Your task to perform on an android device: make emails show in primary in the gmail app Image 0: 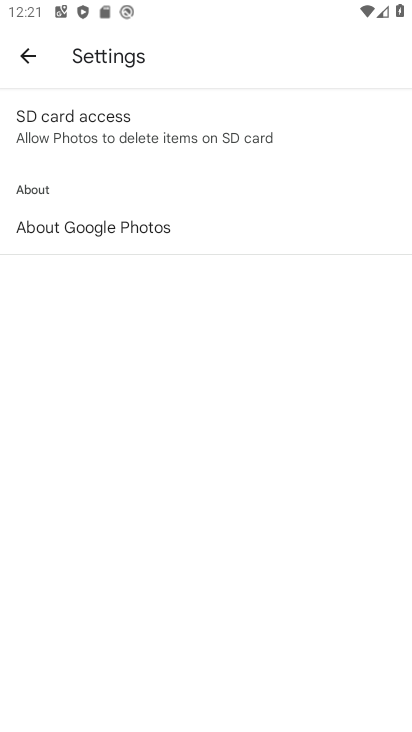
Step 0: press home button
Your task to perform on an android device: make emails show in primary in the gmail app Image 1: 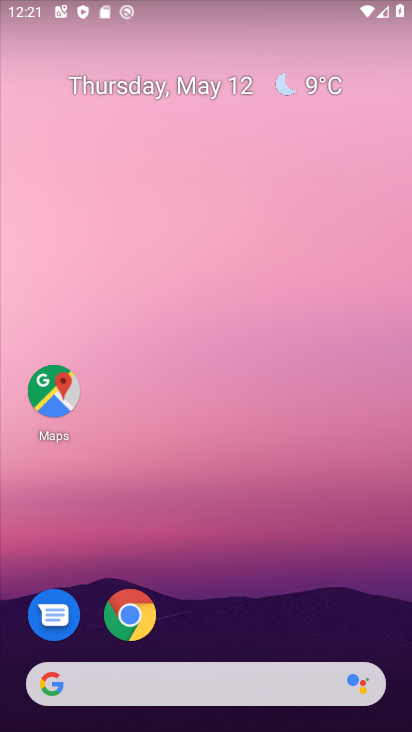
Step 1: drag from (227, 595) to (206, 107)
Your task to perform on an android device: make emails show in primary in the gmail app Image 2: 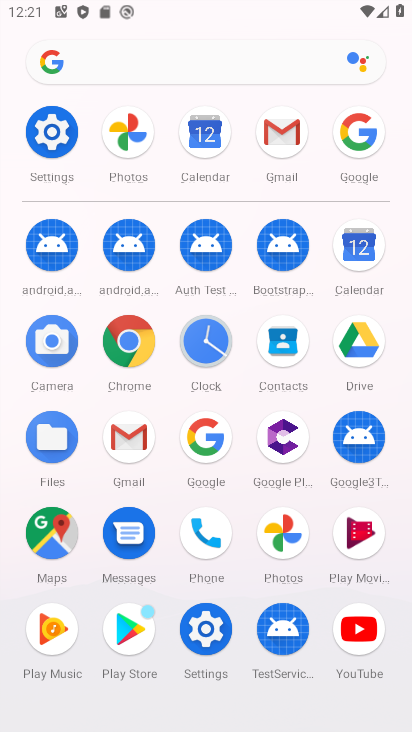
Step 2: click (290, 134)
Your task to perform on an android device: make emails show in primary in the gmail app Image 3: 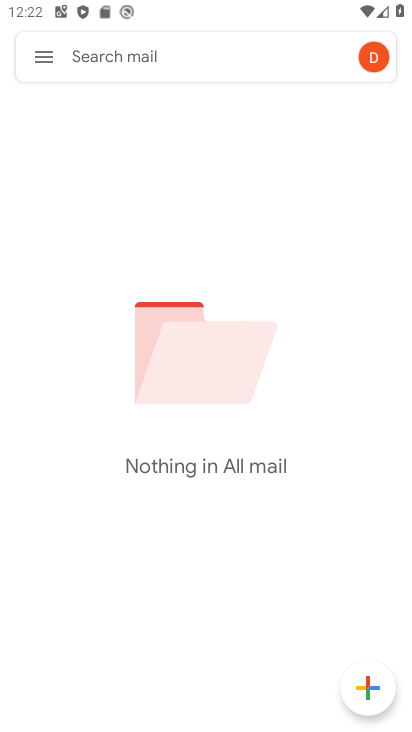
Step 3: click (47, 47)
Your task to perform on an android device: make emails show in primary in the gmail app Image 4: 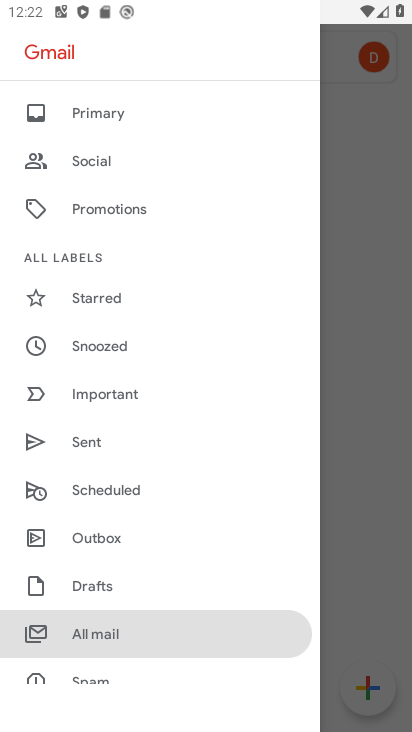
Step 4: drag from (151, 622) to (164, 134)
Your task to perform on an android device: make emails show in primary in the gmail app Image 5: 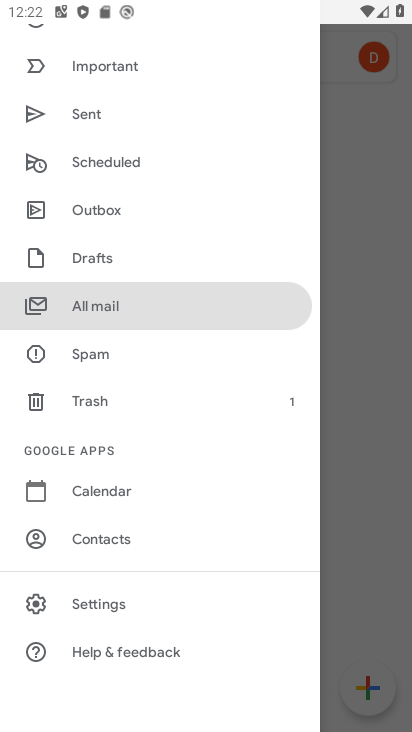
Step 5: click (105, 605)
Your task to perform on an android device: make emails show in primary in the gmail app Image 6: 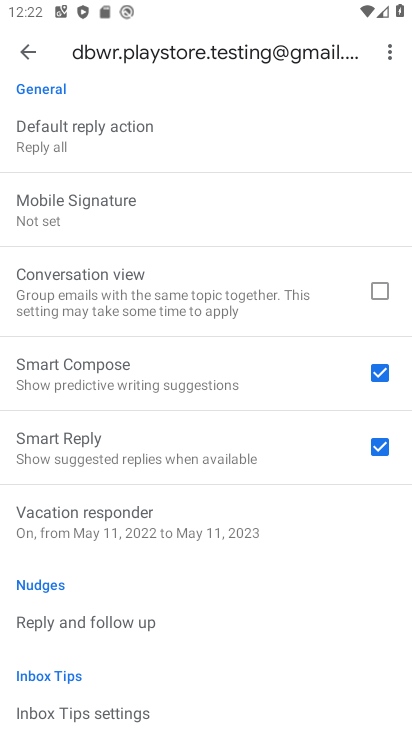
Step 6: drag from (143, 184) to (173, 616)
Your task to perform on an android device: make emails show in primary in the gmail app Image 7: 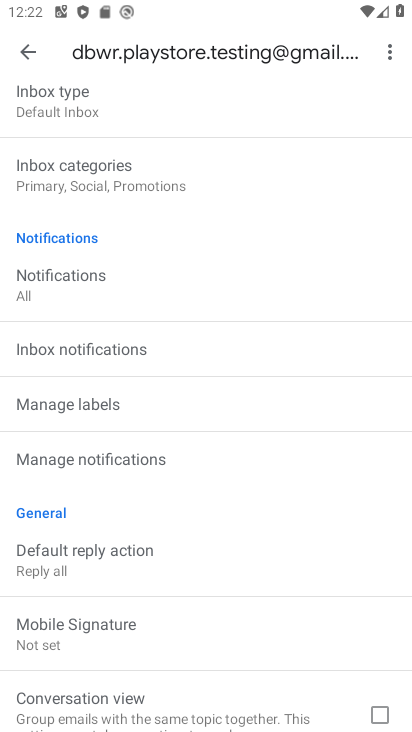
Step 7: click (103, 158)
Your task to perform on an android device: make emails show in primary in the gmail app Image 8: 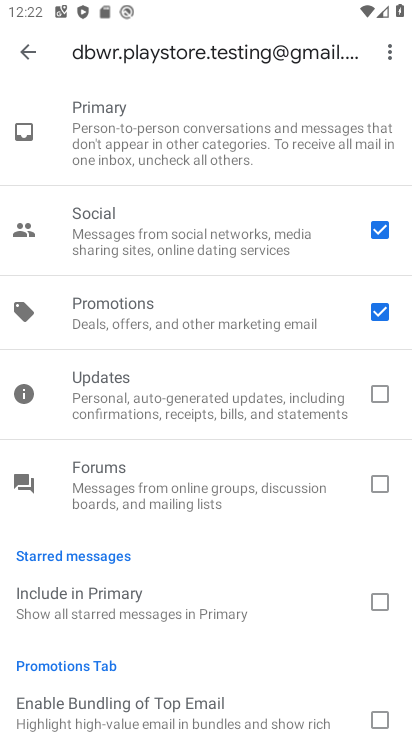
Step 8: task complete